Your task to perform on an android device: turn on improve location accuracy Image 0: 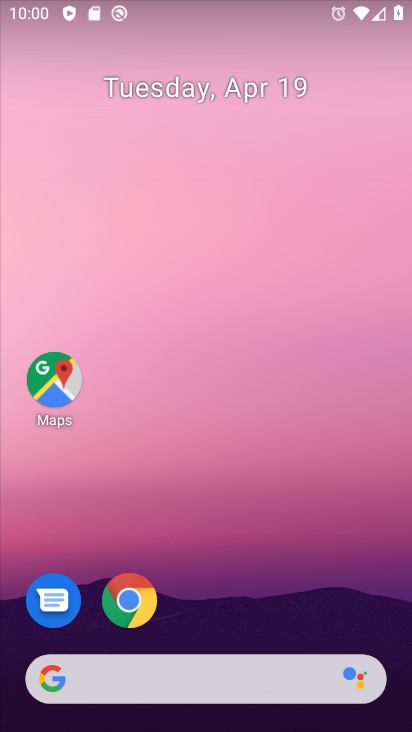
Step 0: drag from (244, 569) to (375, 1)
Your task to perform on an android device: turn on improve location accuracy Image 1: 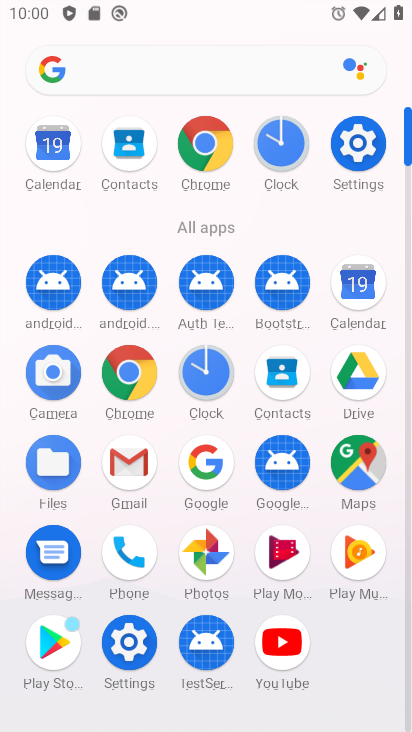
Step 1: click (372, 159)
Your task to perform on an android device: turn on improve location accuracy Image 2: 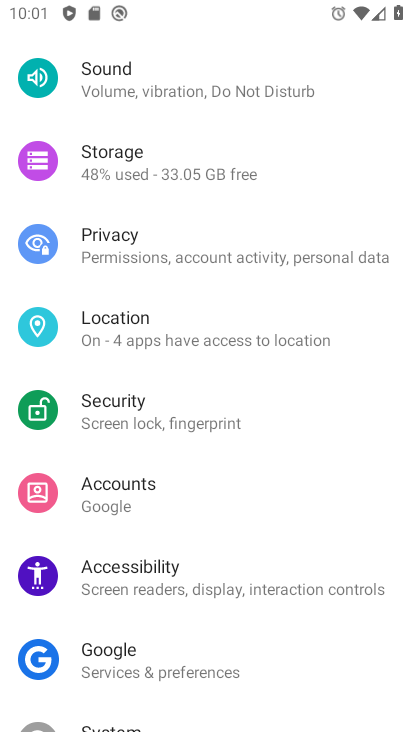
Step 2: click (162, 353)
Your task to perform on an android device: turn on improve location accuracy Image 3: 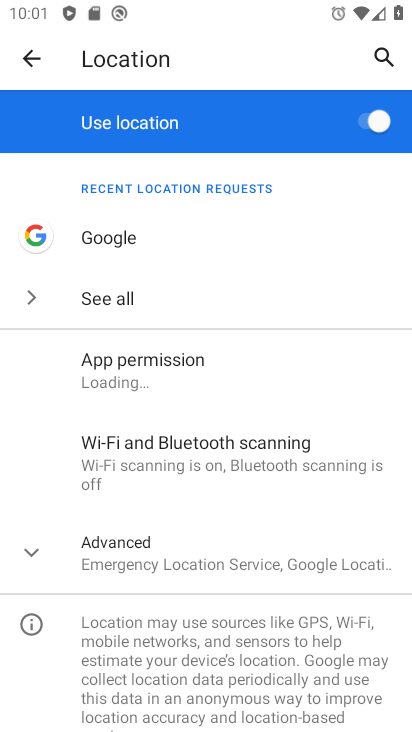
Step 3: click (155, 554)
Your task to perform on an android device: turn on improve location accuracy Image 4: 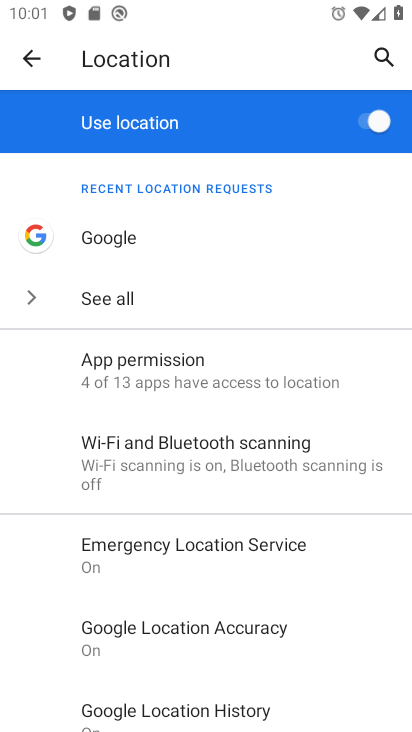
Step 4: drag from (185, 604) to (203, 460)
Your task to perform on an android device: turn on improve location accuracy Image 5: 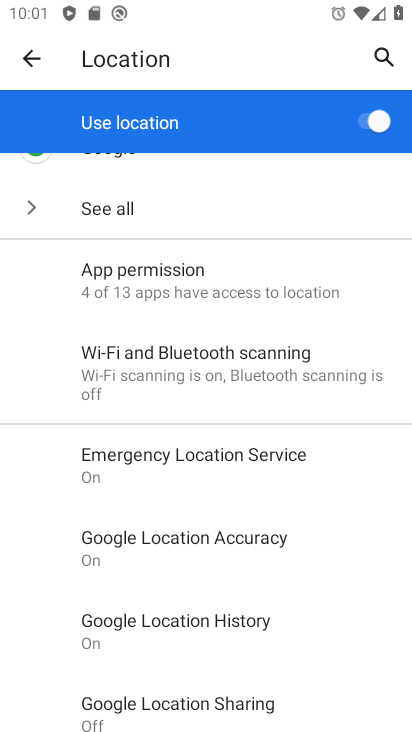
Step 5: click (222, 551)
Your task to perform on an android device: turn on improve location accuracy Image 6: 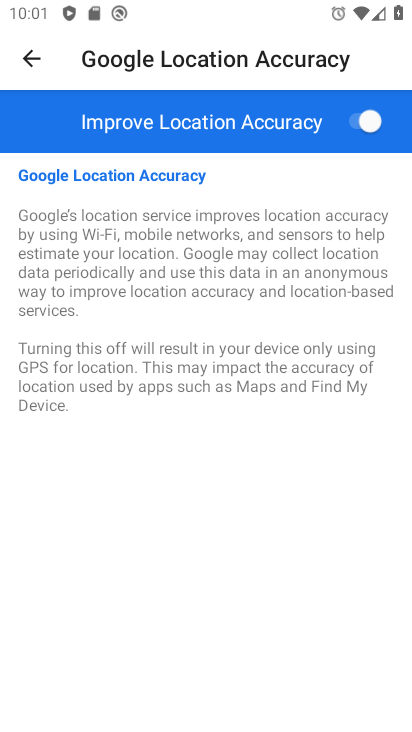
Step 6: task complete